Your task to perform on an android device: turn on wifi Image 0: 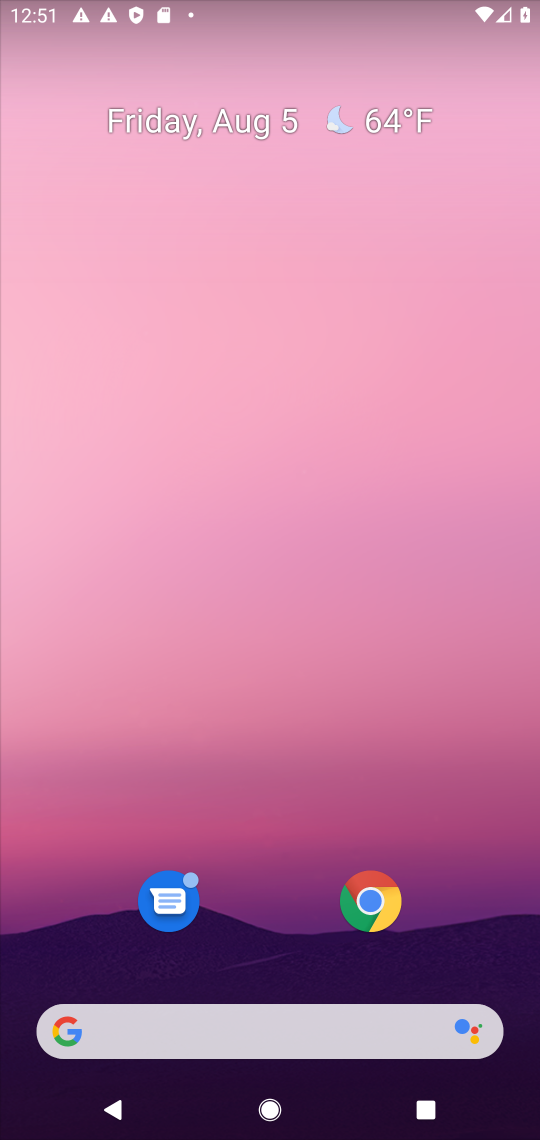
Step 0: drag from (313, 938) to (312, 694)
Your task to perform on an android device: turn on wifi Image 1: 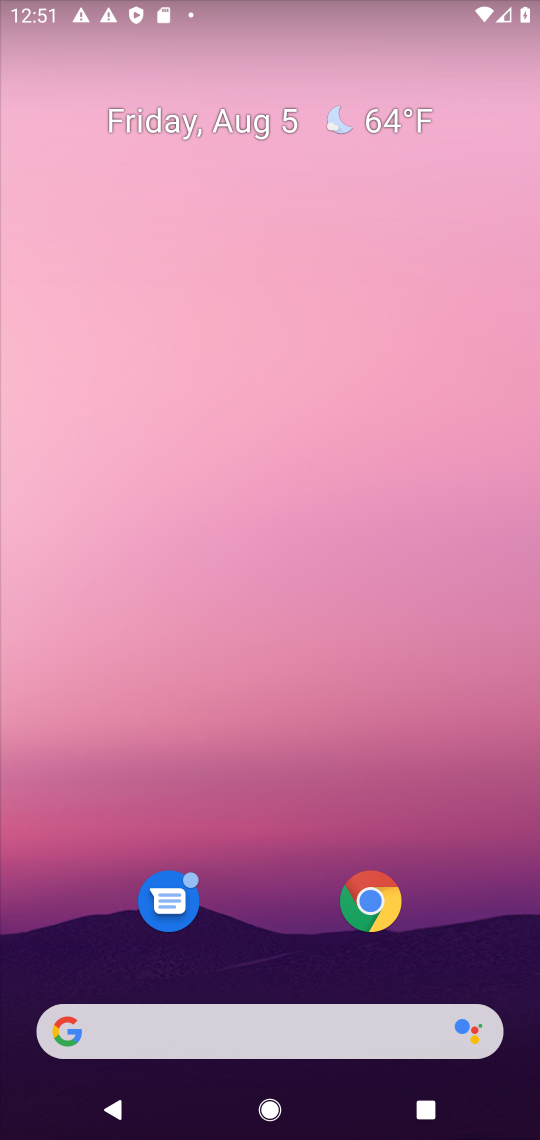
Step 1: drag from (326, 607) to (265, 7)
Your task to perform on an android device: turn on wifi Image 2: 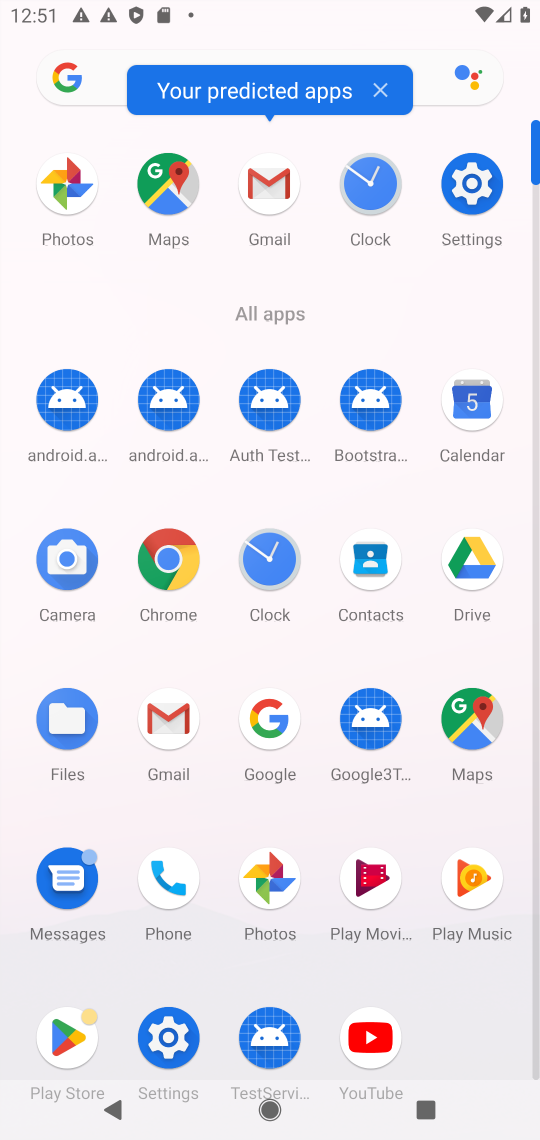
Step 2: click (481, 182)
Your task to perform on an android device: turn on wifi Image 3: 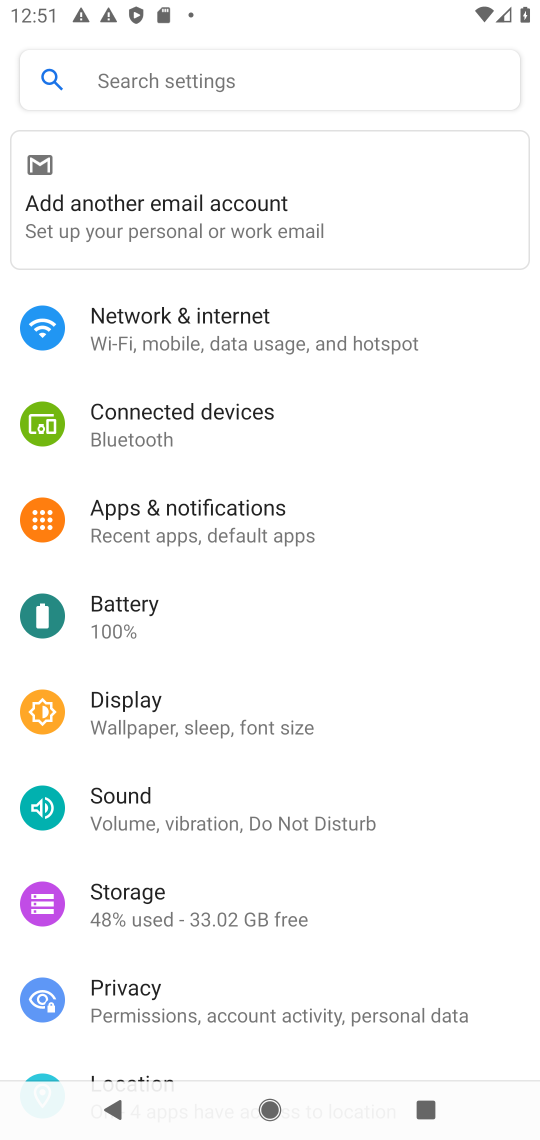
Step 3: click (364, 328)
Your task to perform on an android device: turn on wifi Image 4: 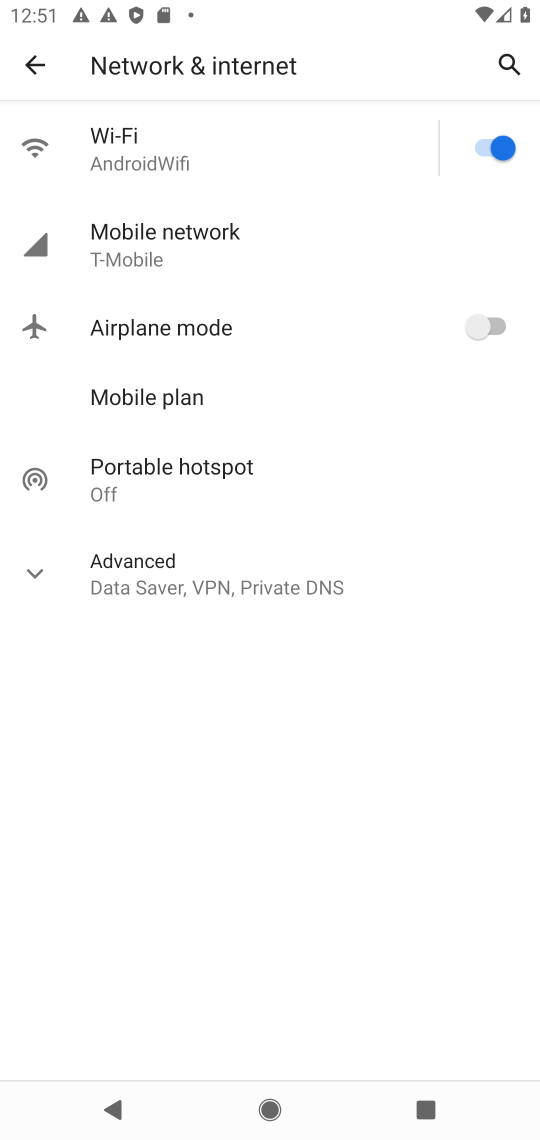
Step 4: task complete